Your task to perform on an android device: Open Google Chrome and open the bookmarks view Image 0: 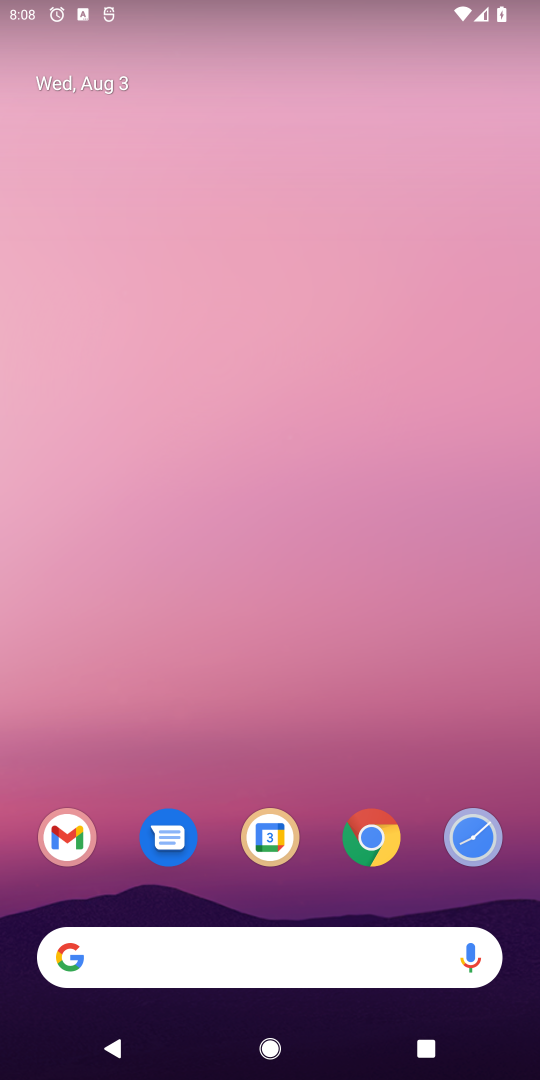
Step 0: press home button
Your task to perform on an android device: Open Google Chrome and open the bookmarks view Image 1: 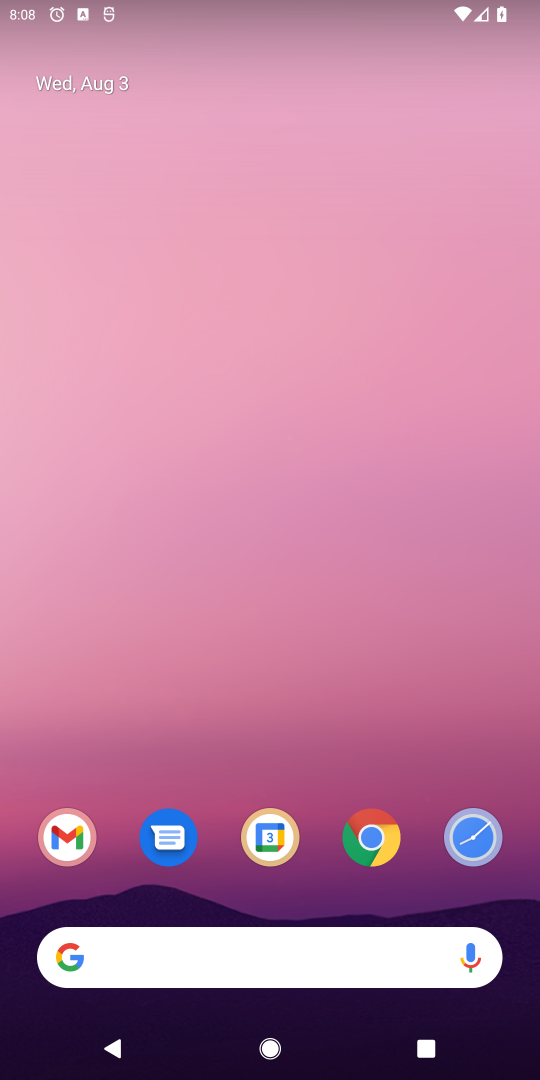
Step 1: click (369, 836)
Your task to perform on an android device: Open Google Chrome and open the bookmarks view Image 2: 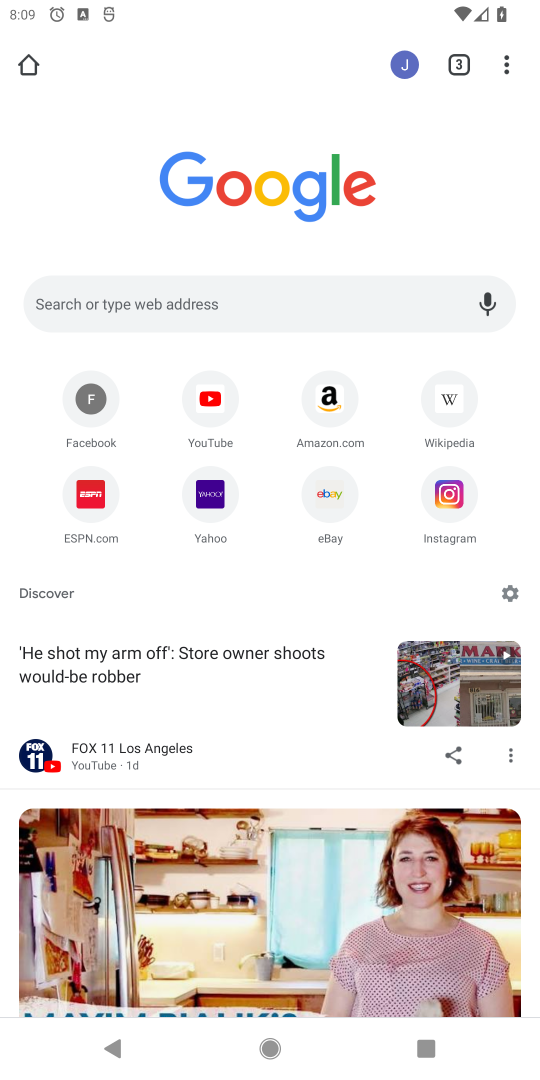
Step 2: click (504, 67)
Your task to perform on an android device: Open Google Chrome and open the bookmarks view Image 3: 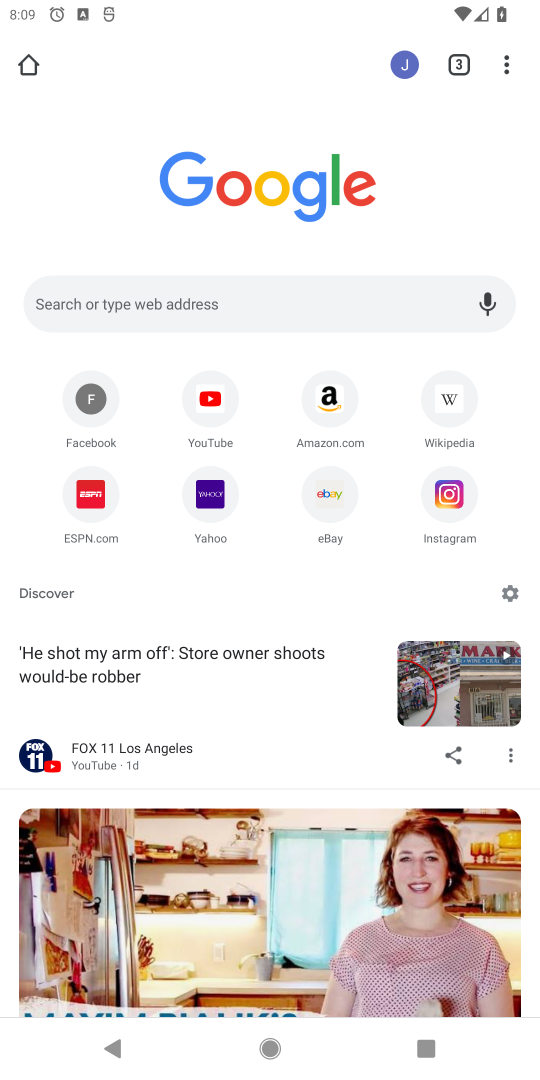
Step 3: click (504, 67)
Your task to perform on an android device: Open Google Chrome and open the bookmarks view Image 4: 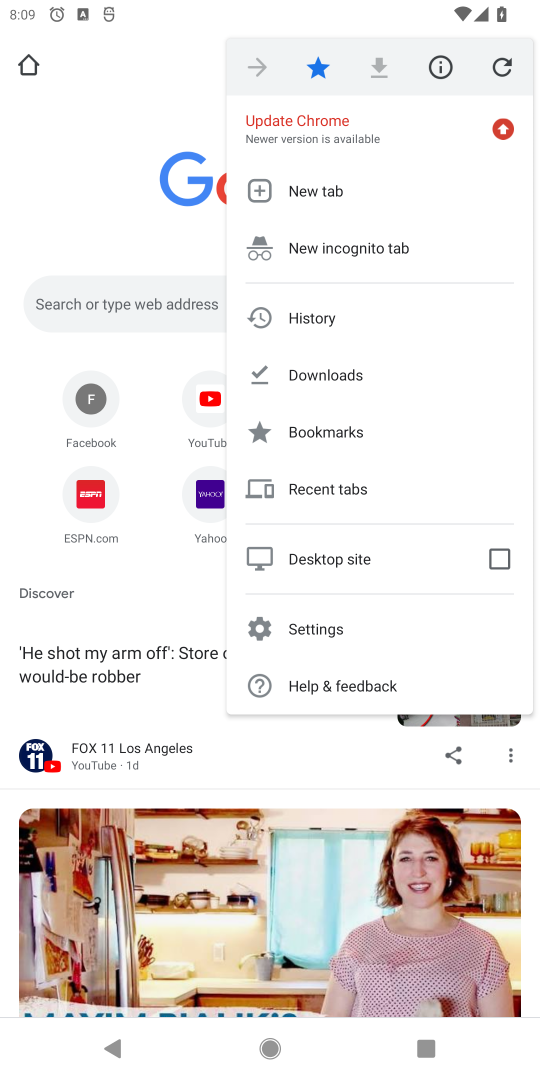
Step 4: click (330, 430)
Your task to perform on an android device: Open Google Chrome and open the bookmarks view Image 5: 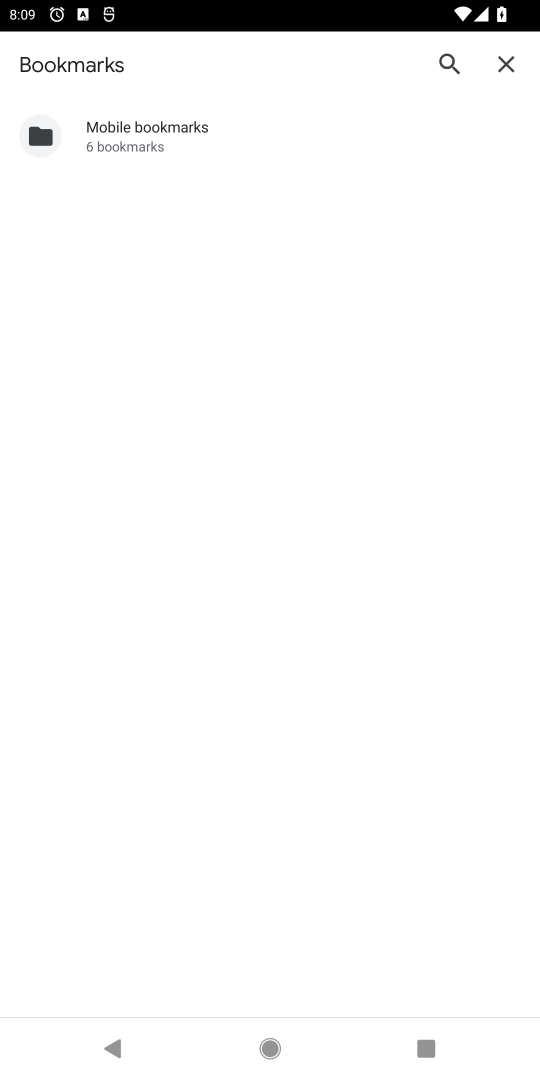
Step 5: task complete